Your task to perform on an android device: open app "PlayWell" (install if not already installed) Image 0: 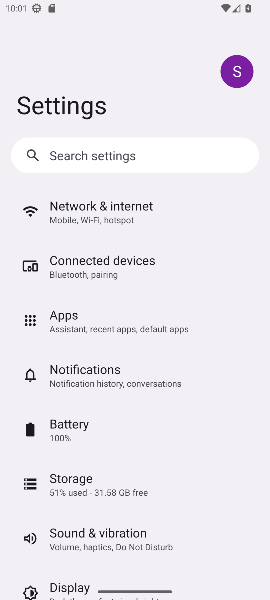
Step 0: press home button
Your task to perform on an android device: open app "PlayWell" (install if not already installed) Image 1: 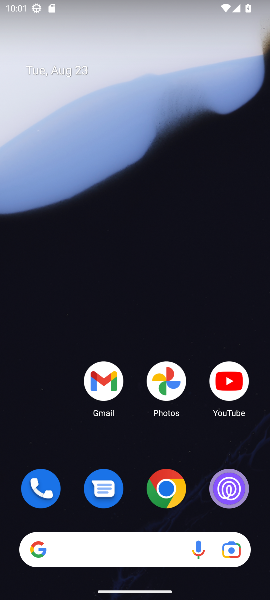
Step 1: drag from (138, 509) to (89, 176)
Your task to perform on an android device: open app "PlayWell" (install if not already installed) Image 2: 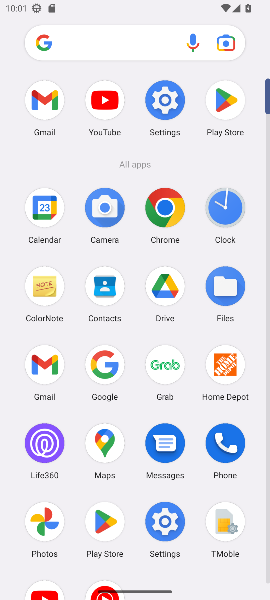
Step 2: click (218, 94)
Your task to perform on an android device: open app "PlayWell" (install if not already installed) Image 3: 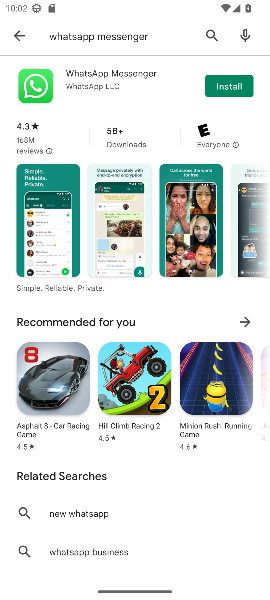
Step 3: click (15, 34)
Your task to perform on an android device: open app "PlayWell" (install if not already installed) Image 4: 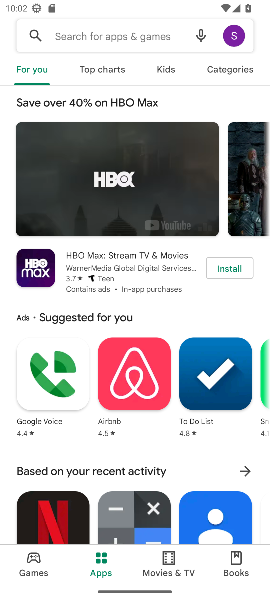
Step 4: click (89, 39)
Your task to perform on an android device: open app "PlayWell" (install if not already installed) Image 5: 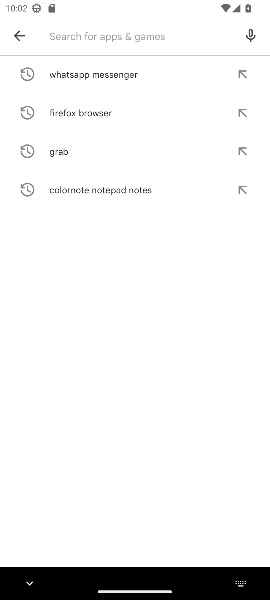
Step 5: type "PlayWell"
Your task to perform on an android device: open app "PlayWell" (install if not already installed) Image 6: 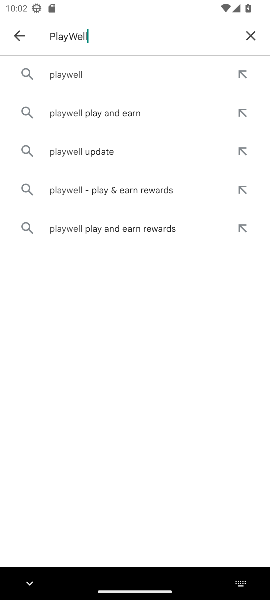
Step 6: click (79, 79)
Your task to perform on an android device: open app "PlayWell" (install if not already installed) Image 7: 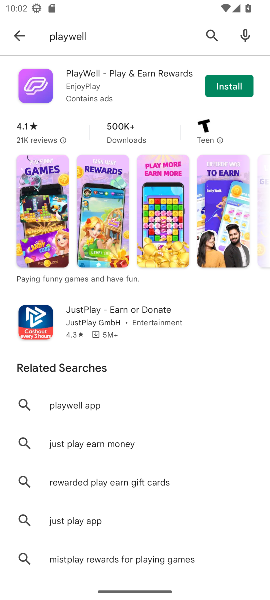
Step 7: click (226, 90)
Your task to perform on an android device: open app "PlayWell" (install if not already installed) Image 8: 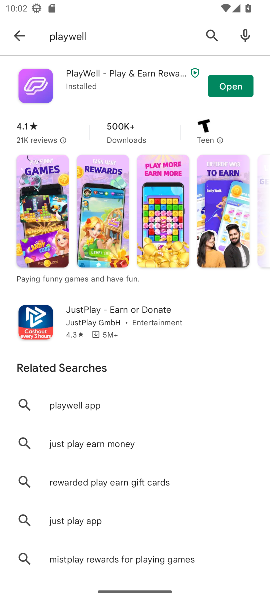
Step 8: click (226, 90)
Your task to perform on an android device: open app "PlayWell" (install if not already installed) Image 9: 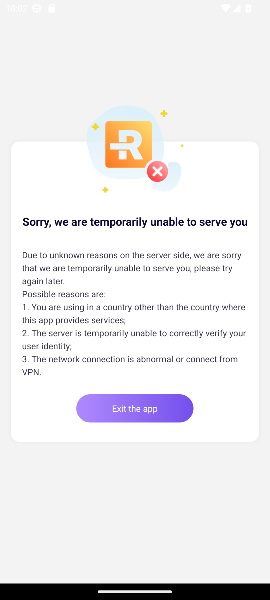
Step 9: task complete